Your task to perform on an android device: turn off location history Image 0: 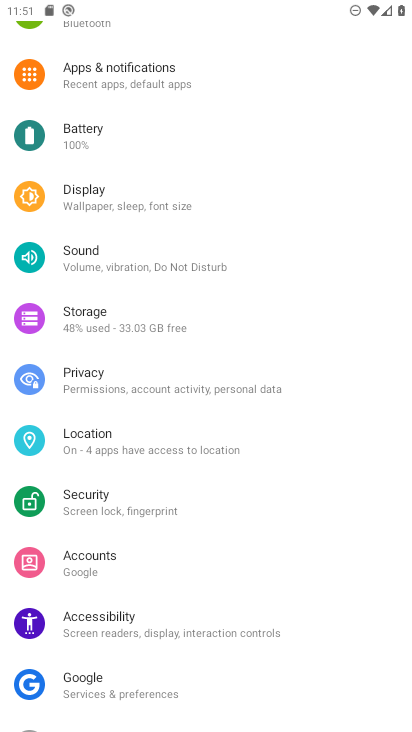
Step 0: click (209, 441)
Your task to perform on an android device: turn off location history Image 1: 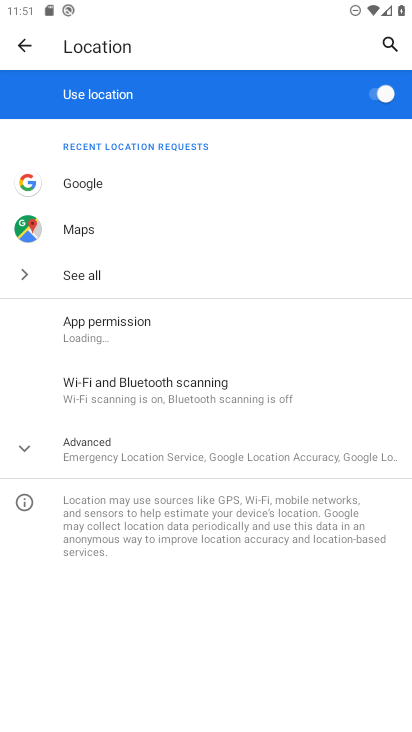
Step 1: click (127, 441)
Your task to perform on an android device: turn off location history Image 2: 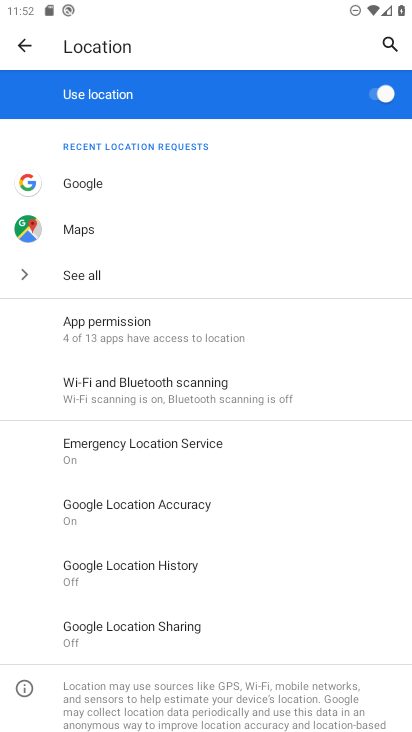
Step 2: click (171, 570)
Your task to perform on an android device: turn off location history Image 3: 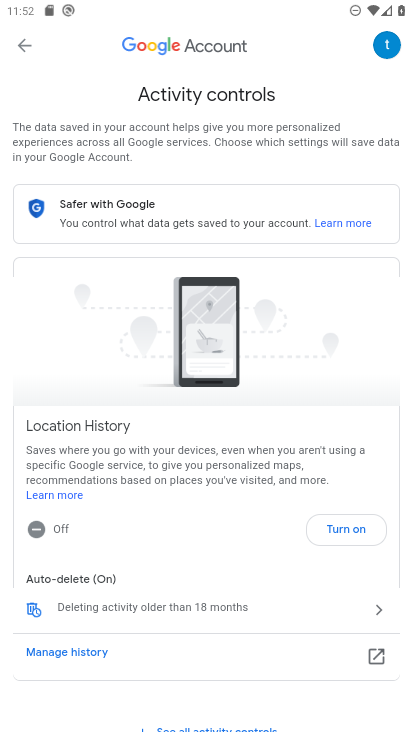
Step 3: task complete